Your task to perform on an android device: toggle improve location accuracy Image 0: 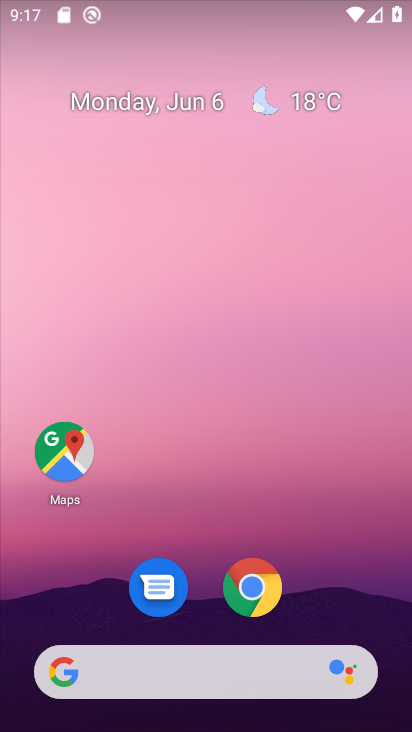
Step 0: click (186, 193)
Your task to perform on an android device: toggle improve location accuracy Image 1: 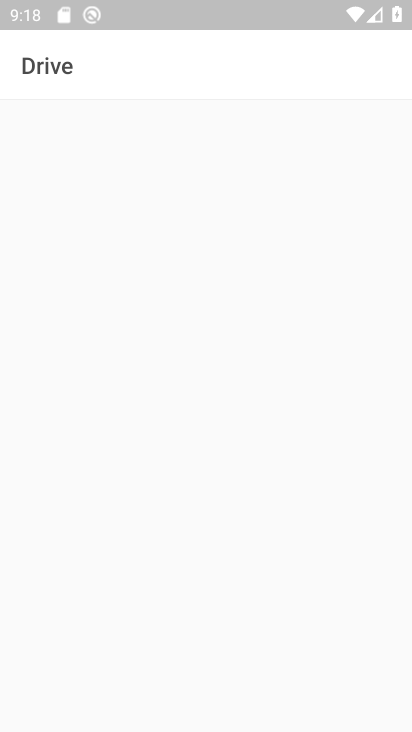
Step 1: press home button
Your task to perform on an android device: toggle improve location accuracy Image 2: 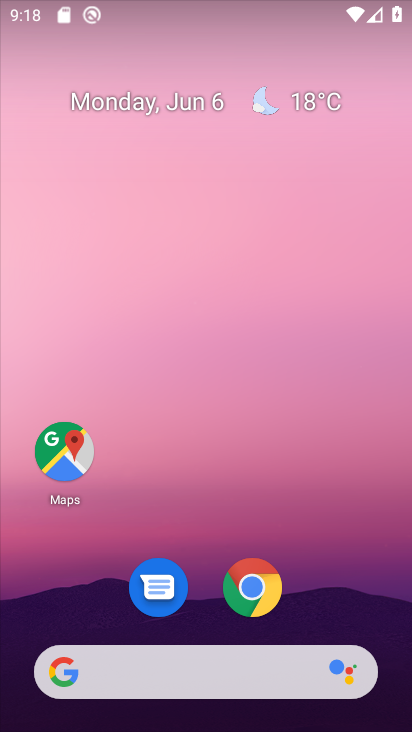
Step 2: drag from (82, 633) to (152, 206)
Your task to perform on an android device: toggle improve location accuracy Image 3: 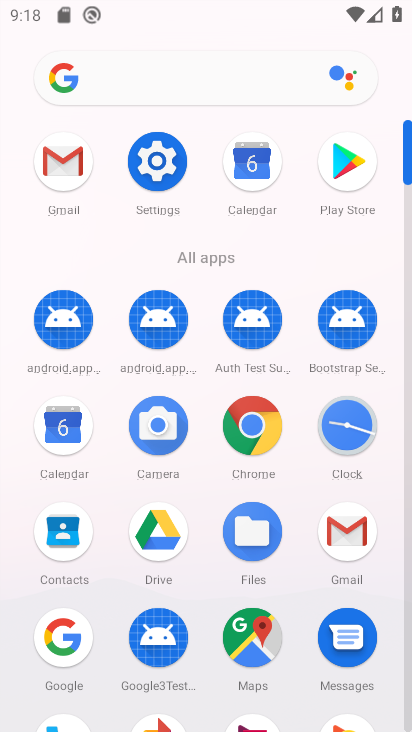
Step 3: drag from (222, 562) to (307, 258)
Your task to perform on an android device: toggle improve location accuracy Image 4: 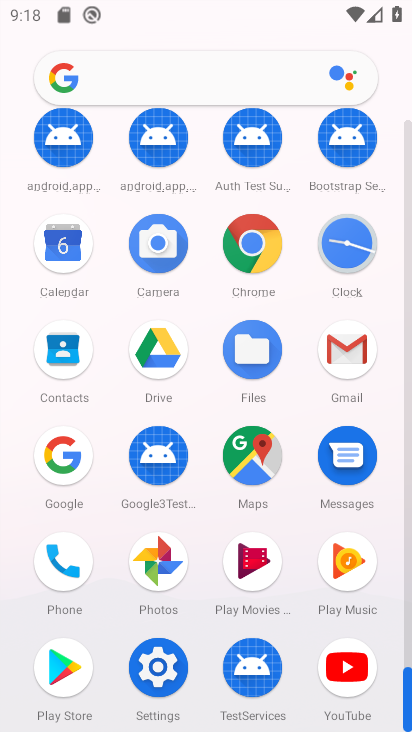
Step 4: click (150, 685)
Your task to perform on an android device: toggle improve location accuracy Image 5: 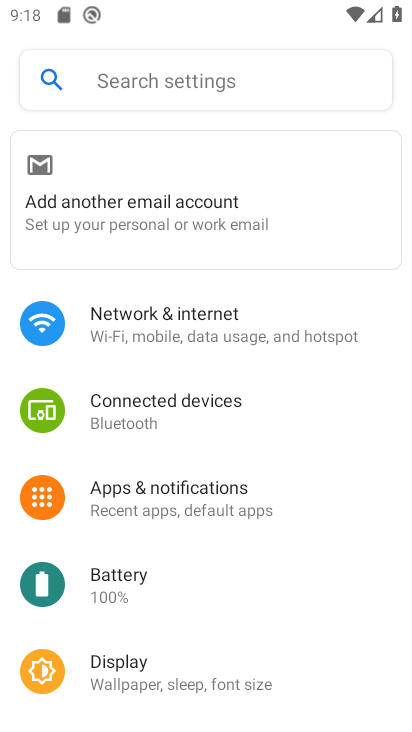
Step 5: drag from (146, 659) to (252, 331)
Your task to perform on an android device: toggle improve location accuracy Image 6: 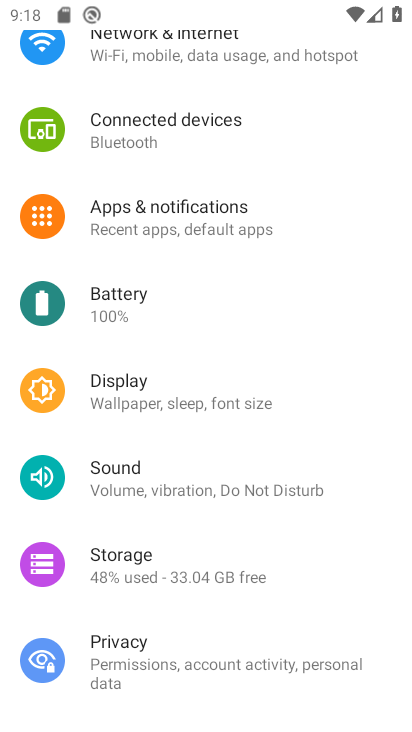
Step 6: drag from (194, 664) to (260, 349)
Your task to perform on an android device: toggle improve location accuracy Image 7: 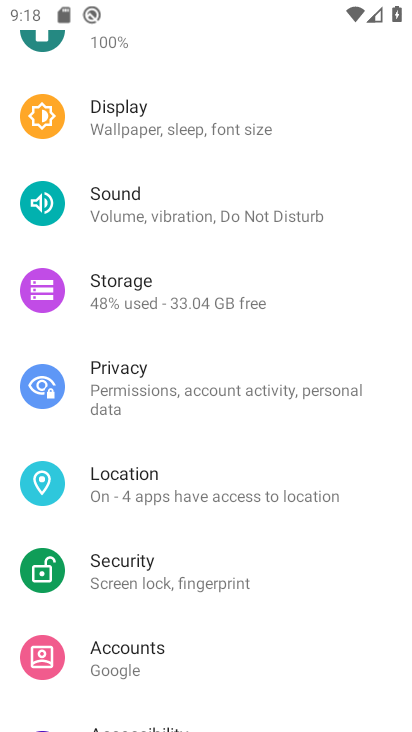
Step 7: click (146, 491)
Your task to perform on an android device: toggle improve location accuracy Image 8: 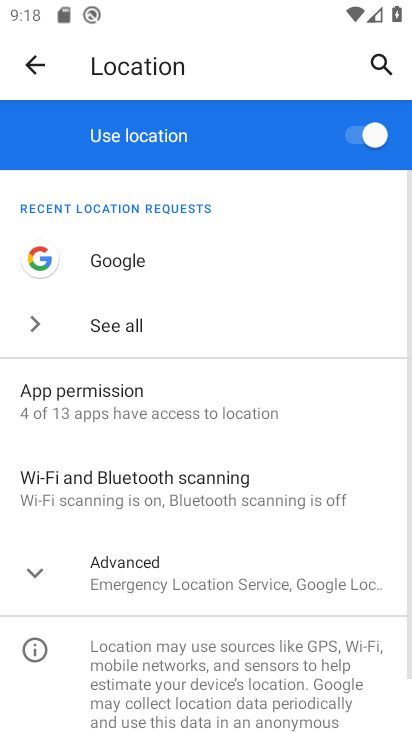
Step 8: click (168, 582)
Your task to perform on an android device: toggle improve location accuracy Image 9: 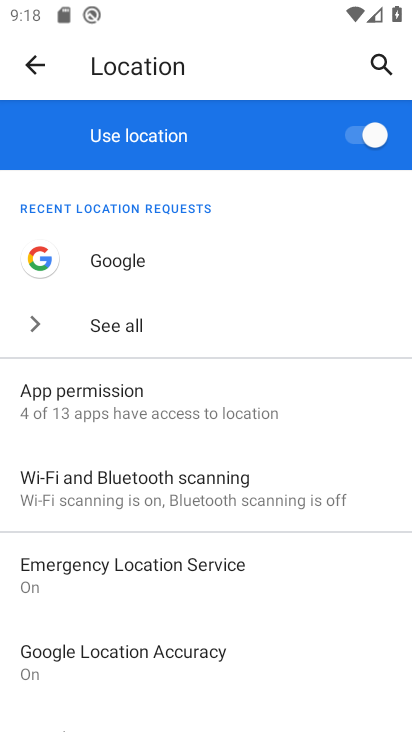
Step 9: drag from (190, 712) to (278, 466)
Your task to perform on an android device: toggle improve location accuracy Image 10: 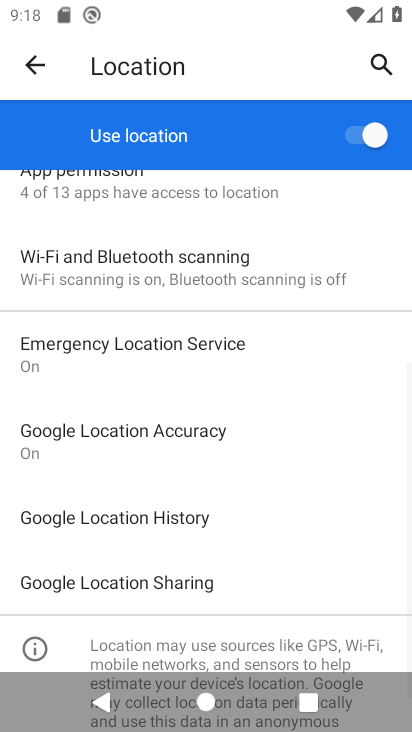
Step 10: click (200, 450)
Your task to perform on an android device: toggle improve location accuracy Image 11: 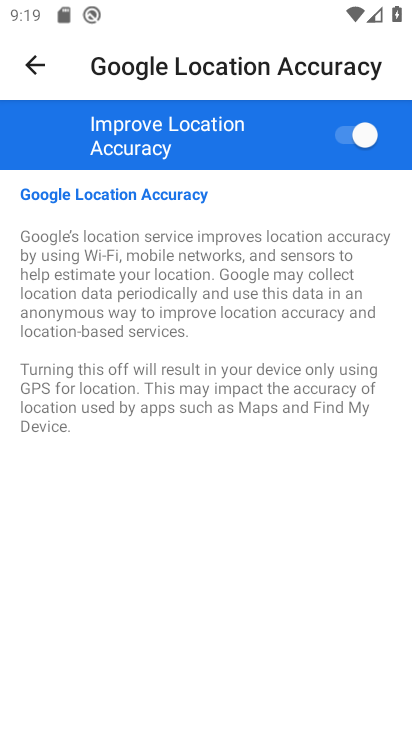
Step 11: click (335, 135)
Your task to perform on an android device: toggle improve location accuracy Image 12: 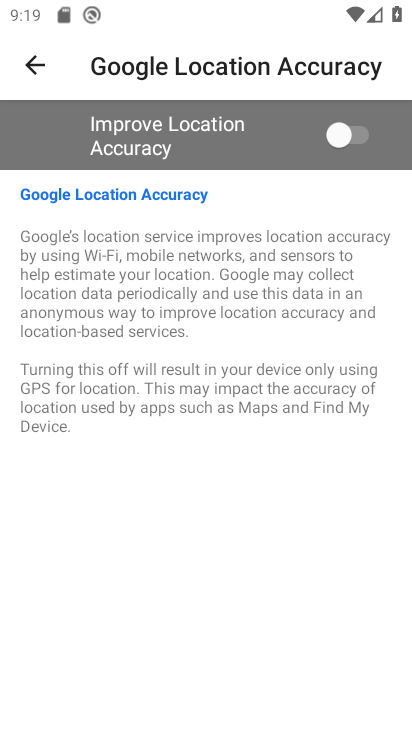
Step 12: task complete